Your task to perform on an android device: Search for Mexican restaurants on Maps Image 0: 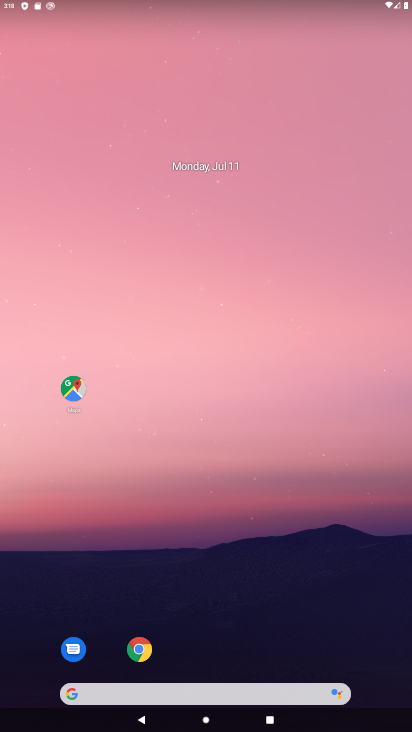
Step 0: click (241, 65)
Your task to perform on an android device: Search for Mexican restaurants on Maps Image 1: 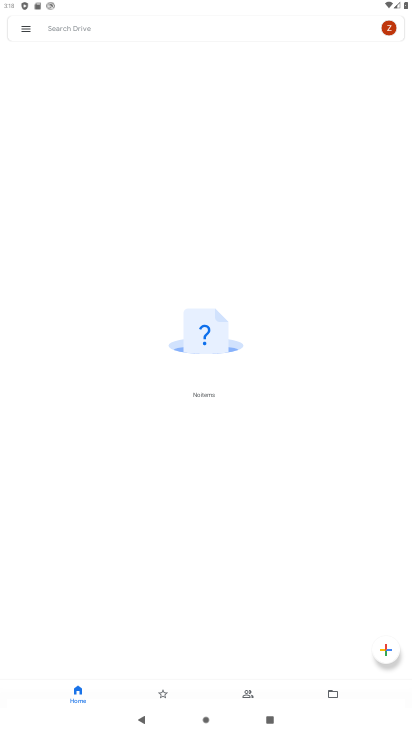
Step 1: press home button
Your task to perform on an android device: Search for Mexican restaurants on Maps Image 2: 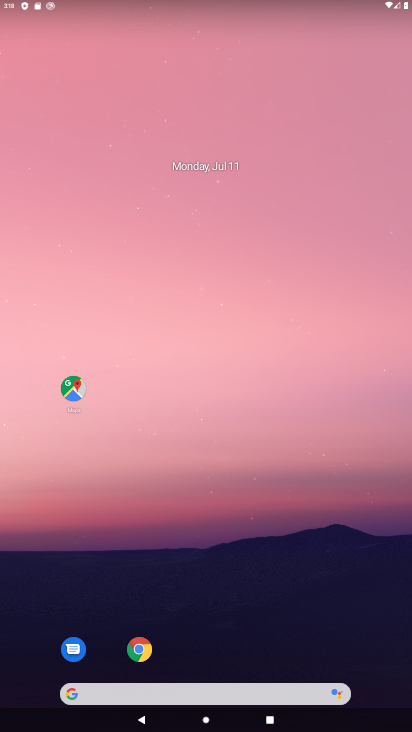
Step 2: drag from (179, 679) to (256, 104)
Your task to perform on an android device: Search for Mexican restaurants on Maps Image 3: 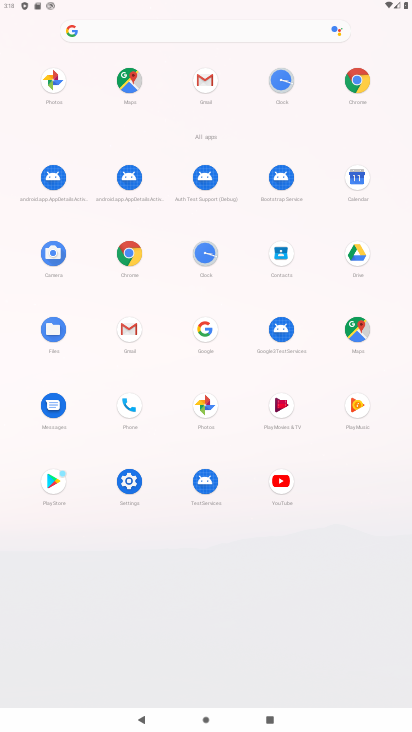
Step 3: click (363, 330)
Your task to perform on an android device: Search for Mexican restaurants on Maps Image 4: 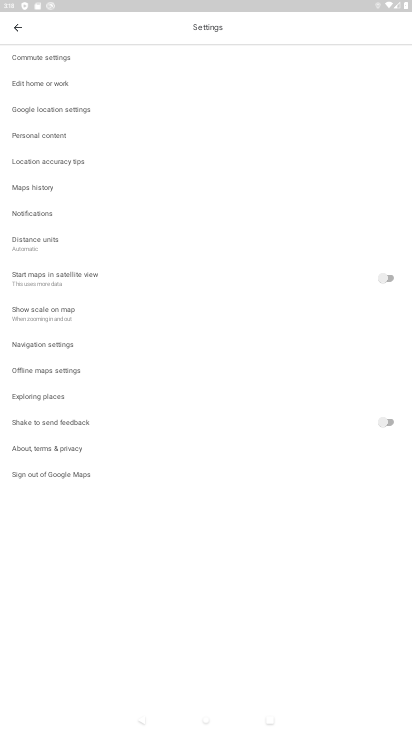
Step 4: press back button
Your task to perform on an android device: Search for Mexican restaurants on Maps Image 5: 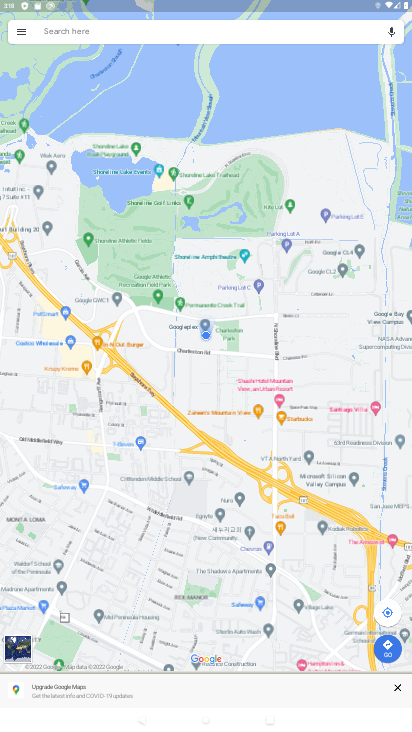
Step 5: click (184, 31)
Your task to perform on an android device: Search for Mexican restaurants on Maps Image 6: 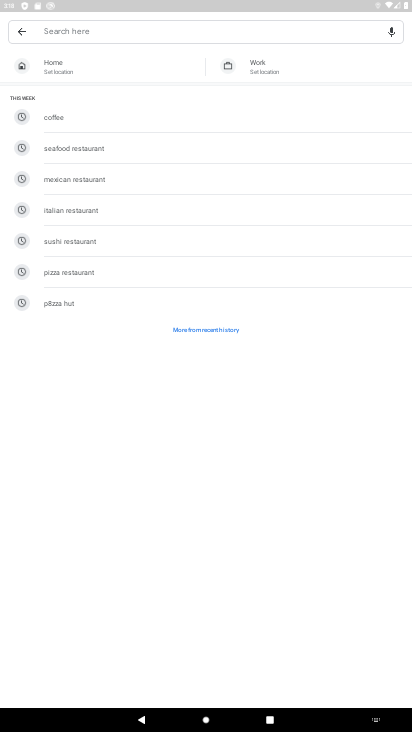
Step 6: type "Mexican Restaurants"
Your task to perform on an android device: Search for Mexican restaurants on Maps Image 7: 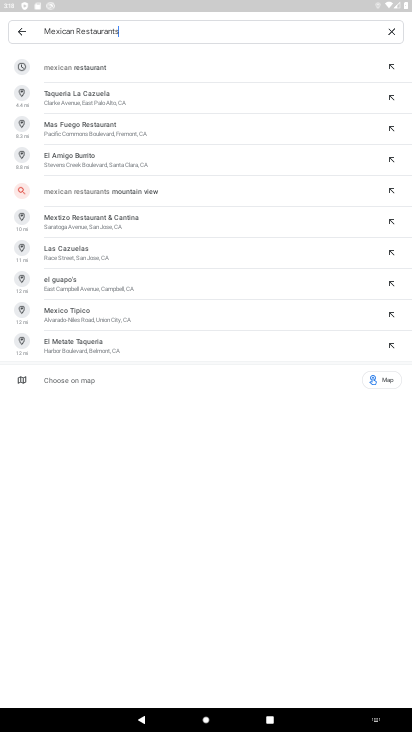
Step 7: click (105, 67)
Your task to perform on an android device: Search for Mexican restaurants on Maps Image 8: 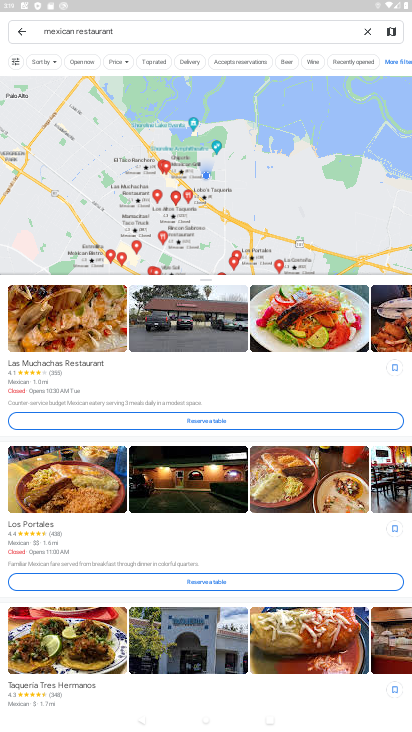
Step 8: task complete